Your task to perform on an android device: Open Youtube and go to "Your channel" Image 0: 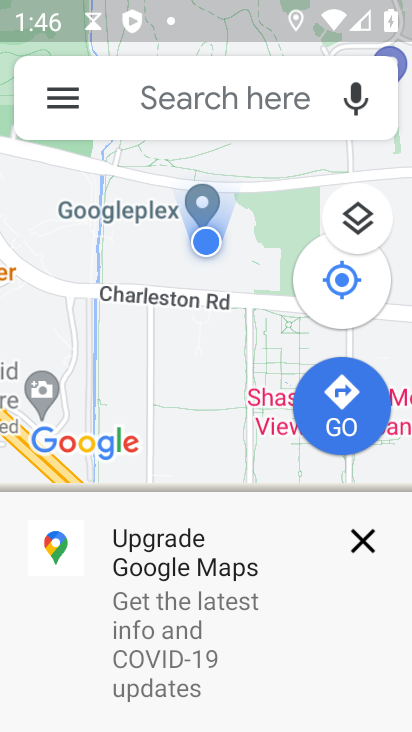
Step 0: press back button
Your task to perform on an android device: Open Youtube and go to "Your channel" Image 1: 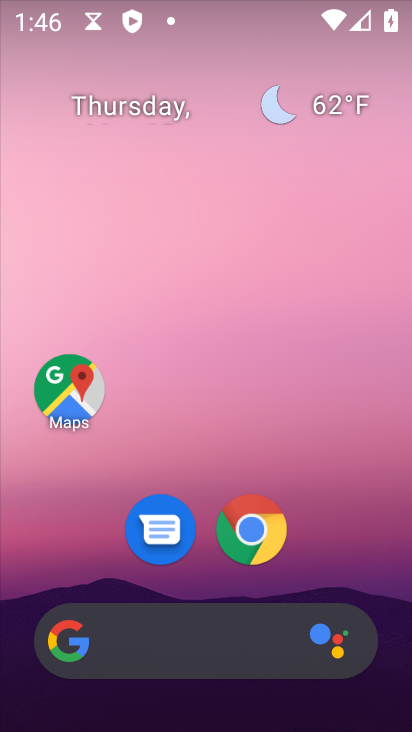
Step 1: drag from (347, 573) to (252, 28)
Your task to perform on an android device: Open Youtube and go to "Your channel" Image 2: 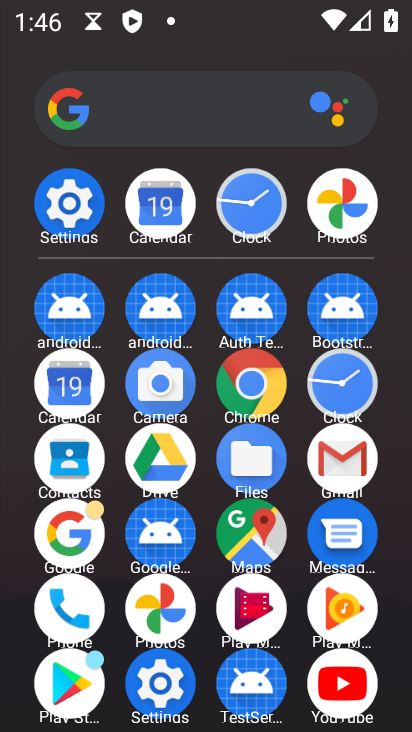
Step 2: drag from (207, 564) to (212, 305)
Your task to perform on an android device: Open Youtube and go to "Your channel" Image 3: 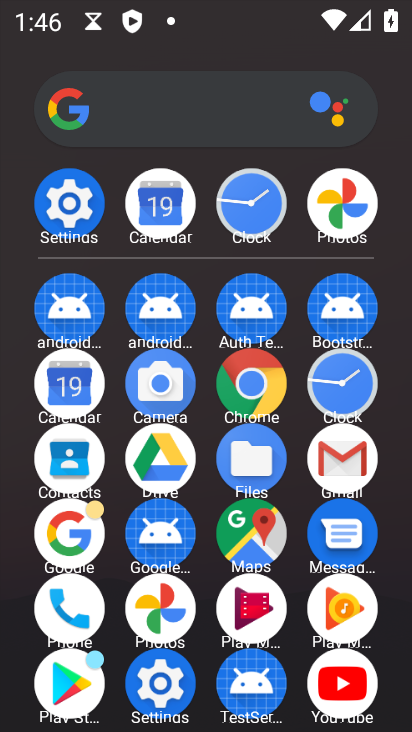
Step 3: click (341, 680)
Your task to perform on an android device: Open Youtube and go to "Your channel" Image 4: 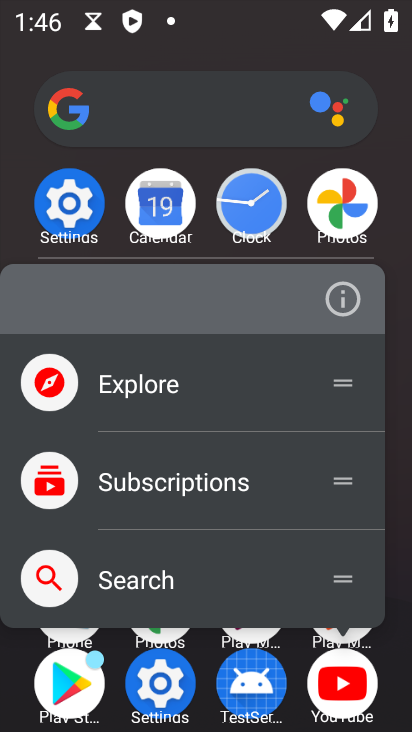
Step 4: click (341, 680)
Your task to perform on an android device: Open Youtube and go to "Your channel" Image 5: 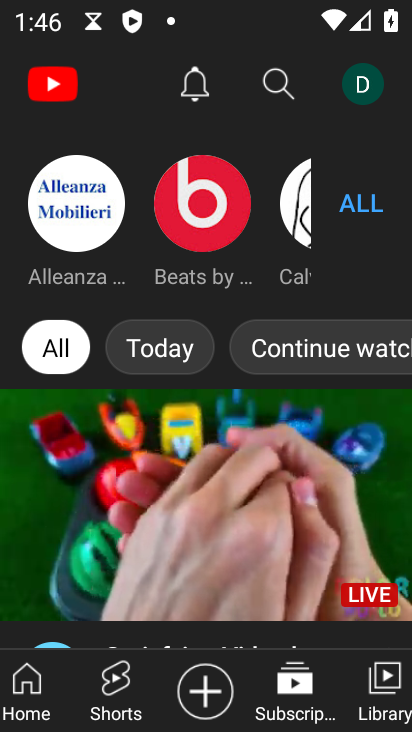
Step 5: click (356, 94)
Your task to perform on an android device: Open Youtube and go to "Your channel" Image 6: 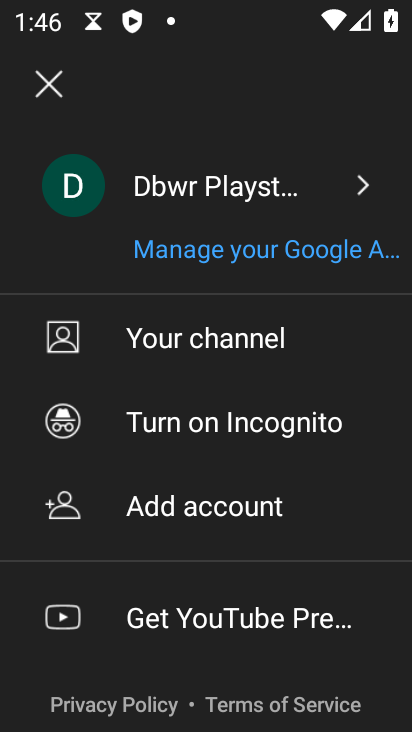
Step 6: click (182, 331)
Your task to perform on an android device: Open Youtube and go to "Your channel" Image 7: 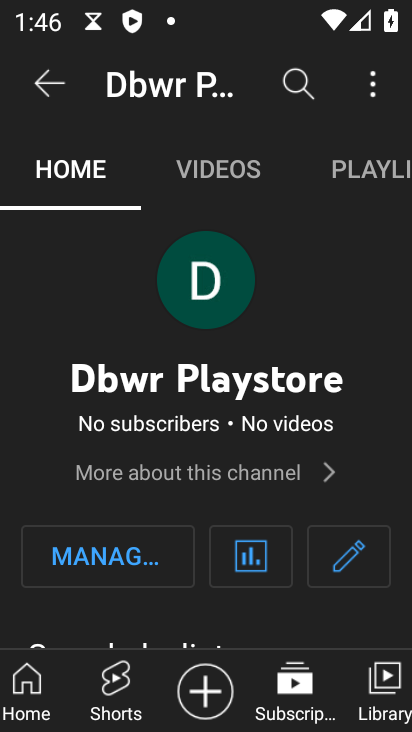
Step 7: task complete